Your task to perform on an android device: Go to internet settings Image 0: 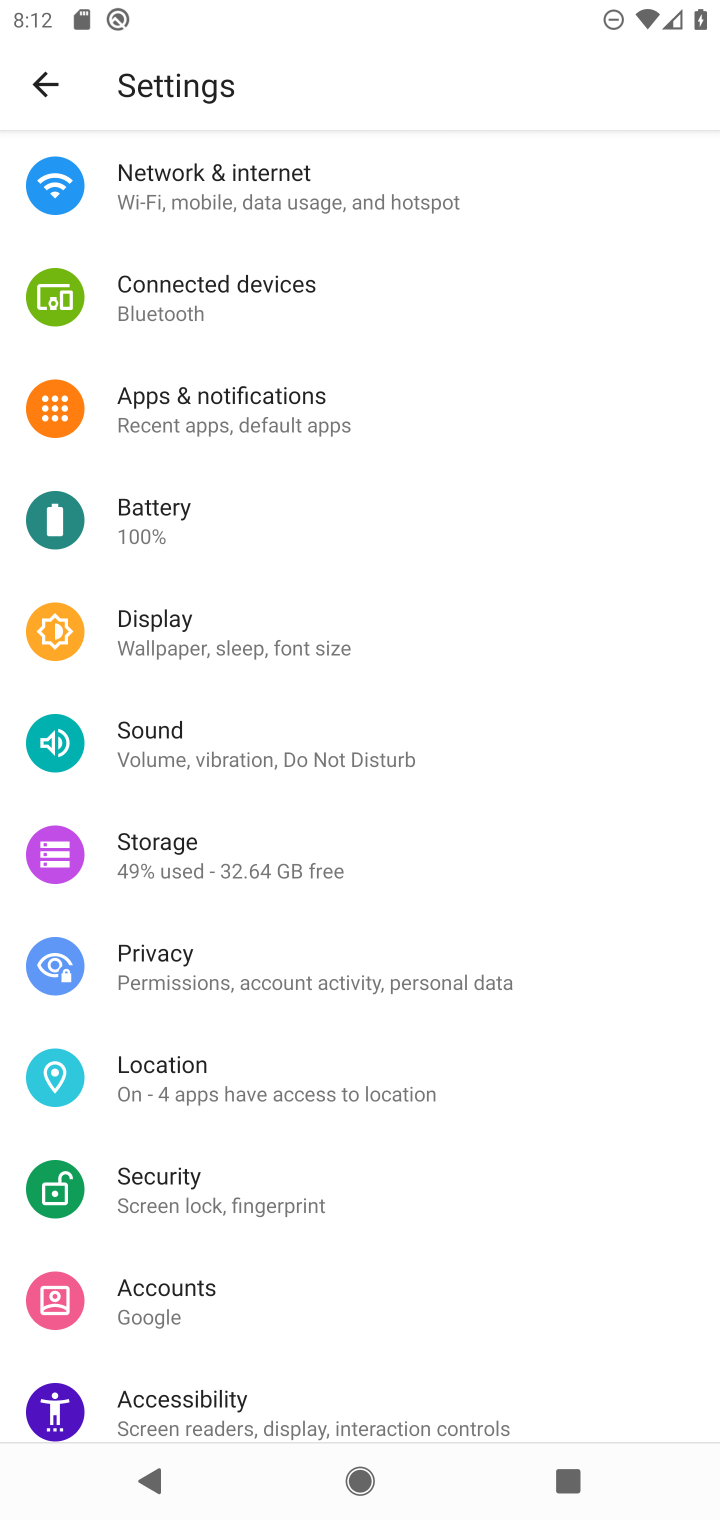
Step 0: click (225, 177)
Your task to perform on an android device: Go to internet settings Image 1: 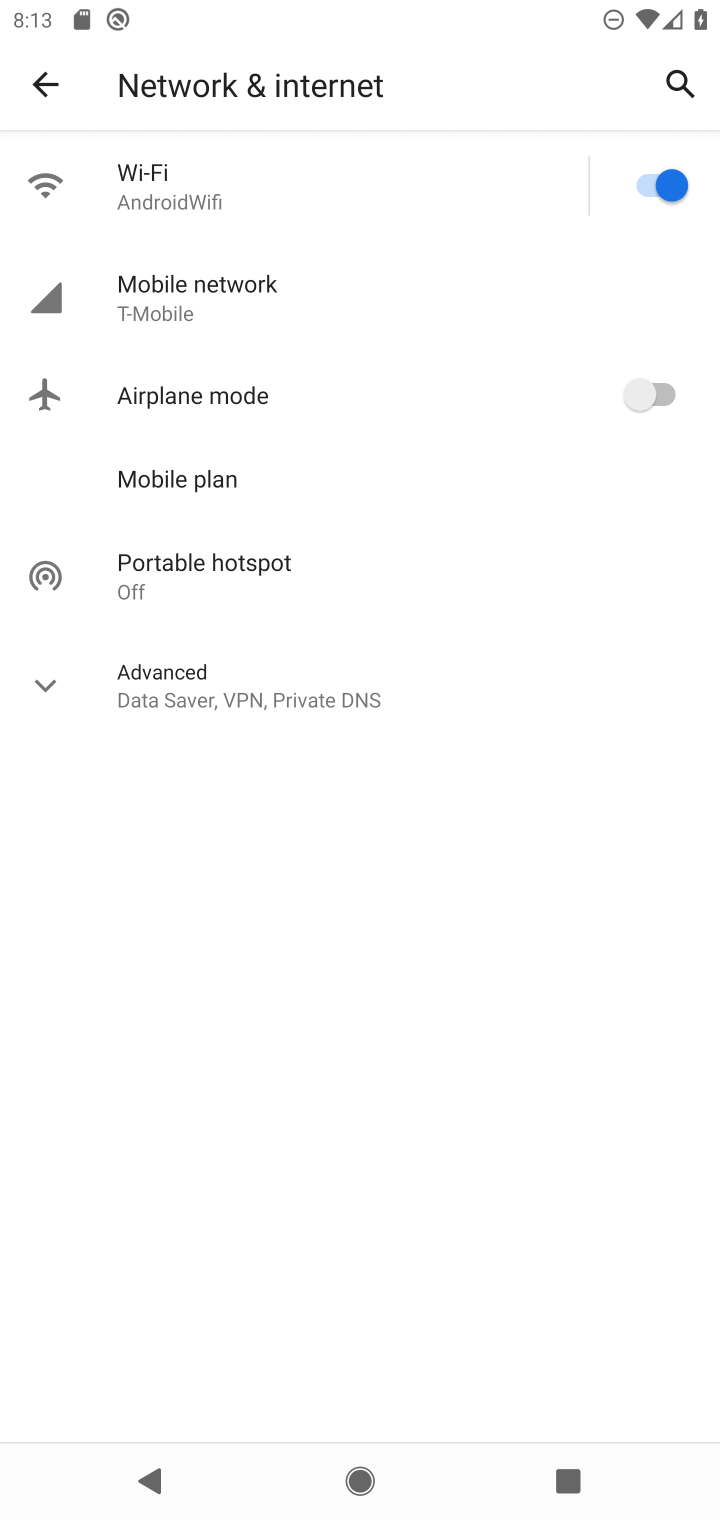
Step 1: click (194, 287)
Your task to perform on an android device: Go to internet settings Image 2: 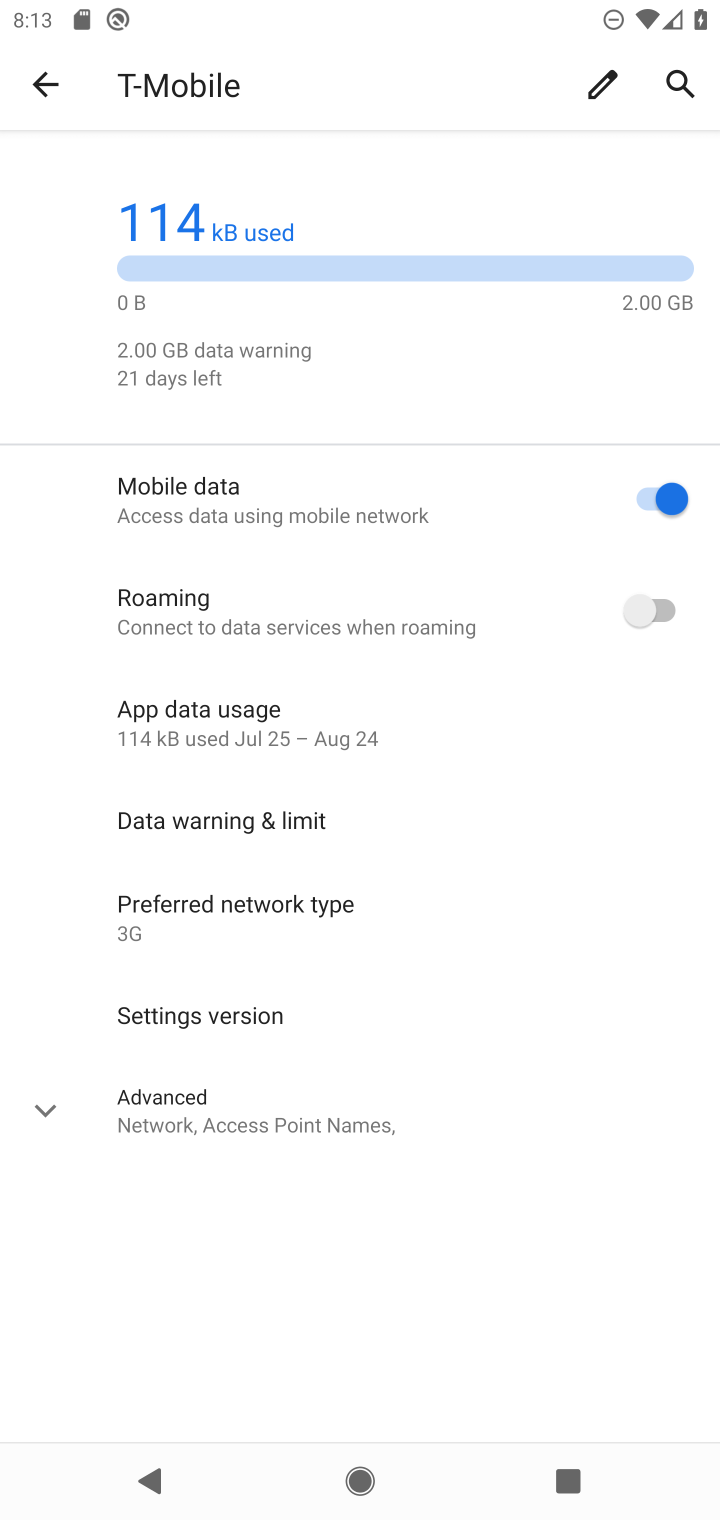
Step 2: task complete